Your task to perform on an android device: open sync settings in chrome Image 0: 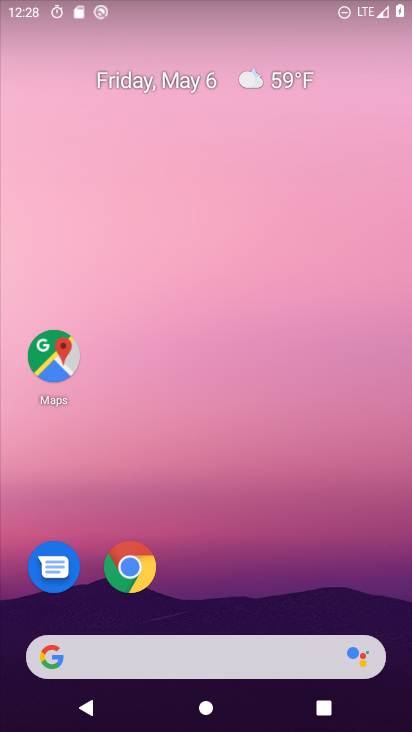
Step 0: click (130, 571)
Your task to perform on an android device: open sync settings in chrome Image 1: 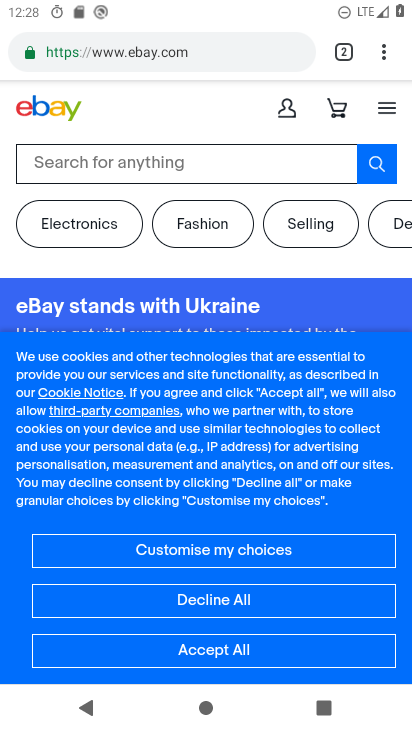
Step 1: drag from (385, 48) to (208, 599)
Your task to perform on an android device: open sync settings in chrome Image 2: 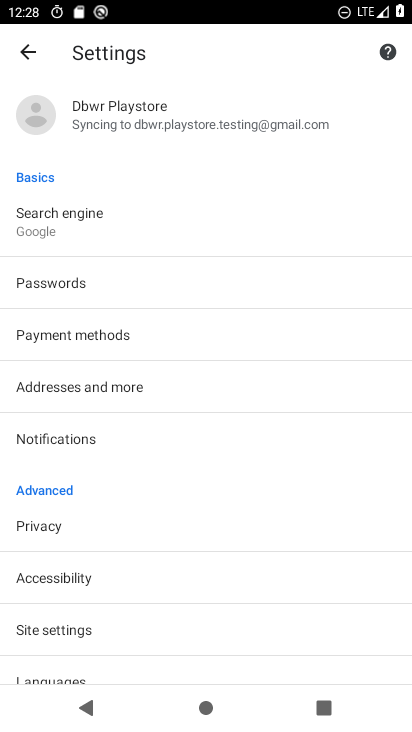
Step 2: click (131, 124)
Your task to perform on an android device: open sync settings in chrome Image 3: 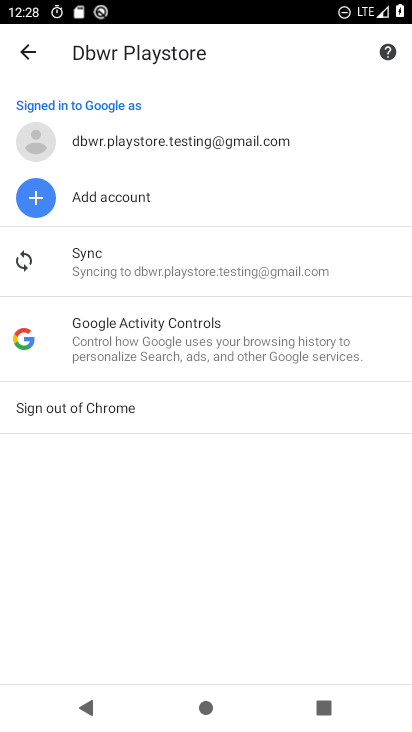
Step 3: click (117, 276)
Your task to perform on an android device: open sync settings in chrome Image 4: 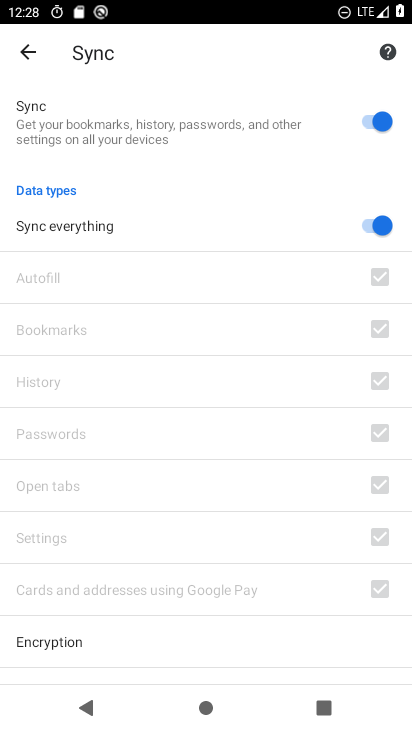
Step 4: task complete